Your task to perform on an android device: Go to privacy settings Image 0: 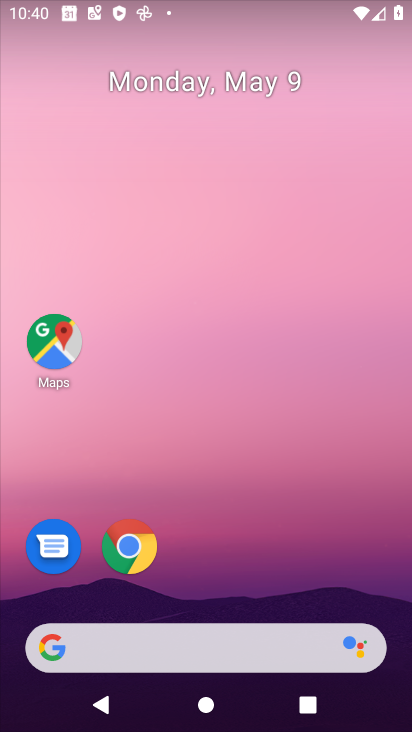
Step 0: drag from (250, 710) to (281, 111)
Your task to perform on an android device: Go to privacy settings Image 1: 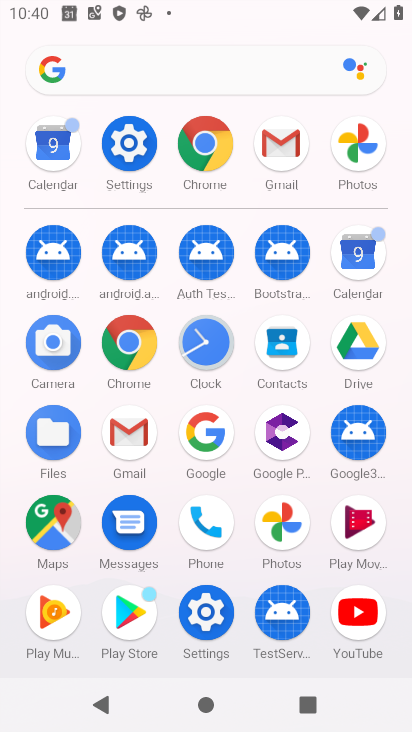
Step 1: click (150, 143)
Your task to perform on an android device: Go to privacy settings Image 2: 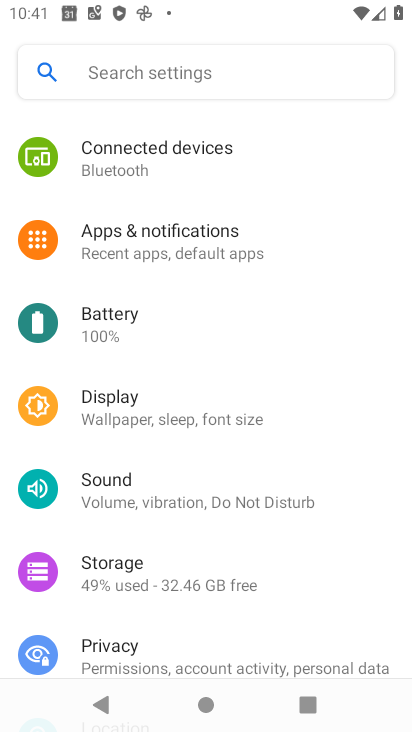
Step 2: click (218, 660)
Your task to perform on an android device: Go to privacy settings Image 3: 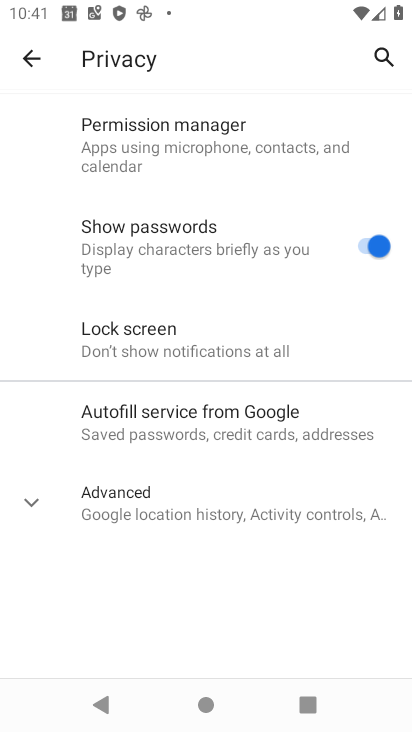
Step 3: task complete